Your task to perform on an android device: empty trash in google photos Image 0: 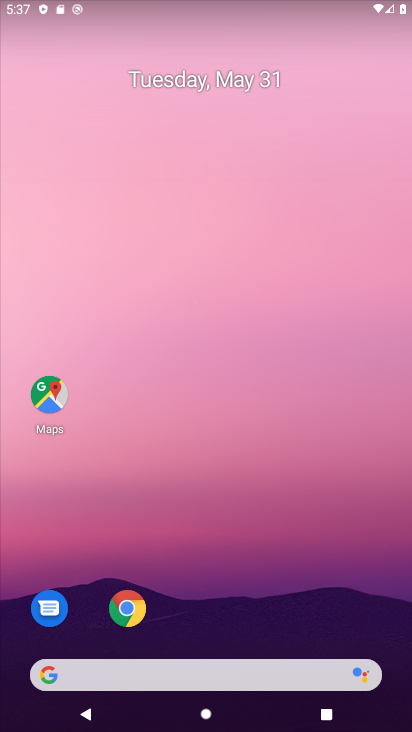
Step 0: drag from (214, 617) to (202, 299)
Your task to perform on an android device: empty trash in google photos Image 1: 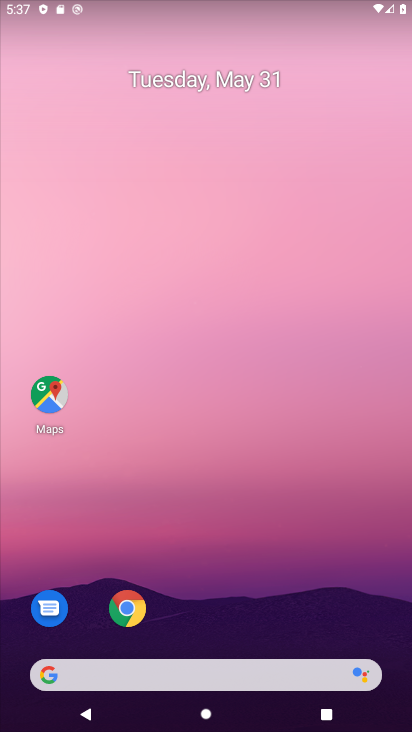
Step 1: drag from (244, 650) to (225, 248)
Your task to perform on an android device: empty trash in google photos Image 2: 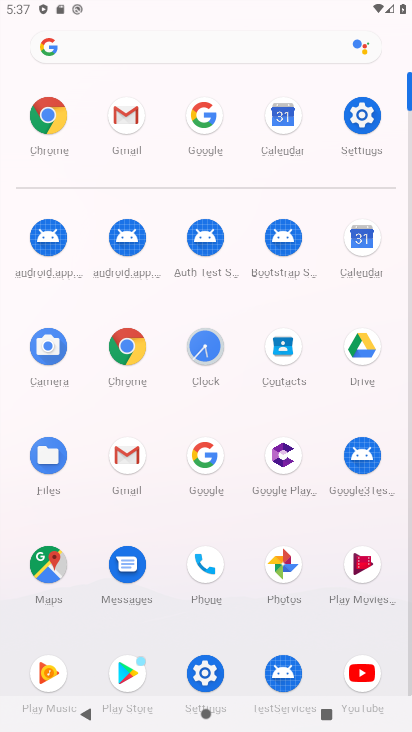
Step 2: click (292, 564)
Your task to perform on an android device: empty trash in google photos Image 3: 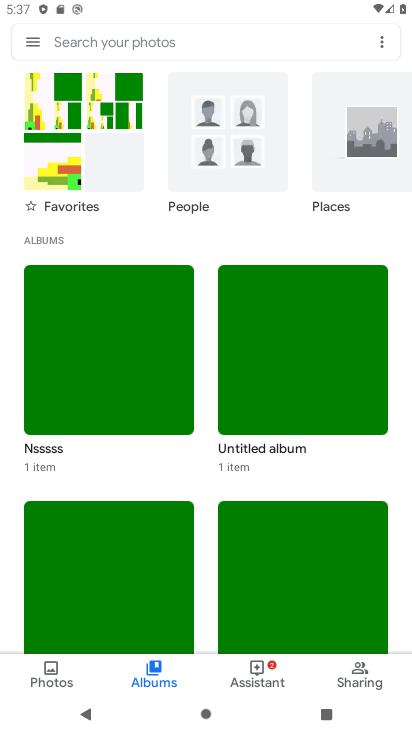
Step 3: click (36, 45)
Your task to perform on an android device: empty trash in google photos Image 4: 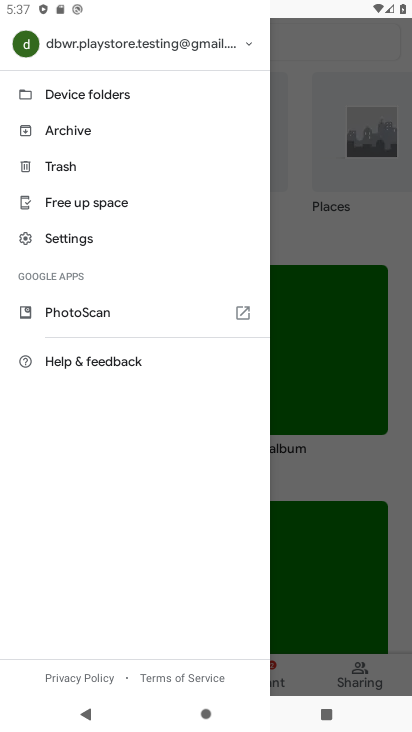
Step 4: click (63, 163)
Your task to perform on an android device: empty trash in google photos Image 5: 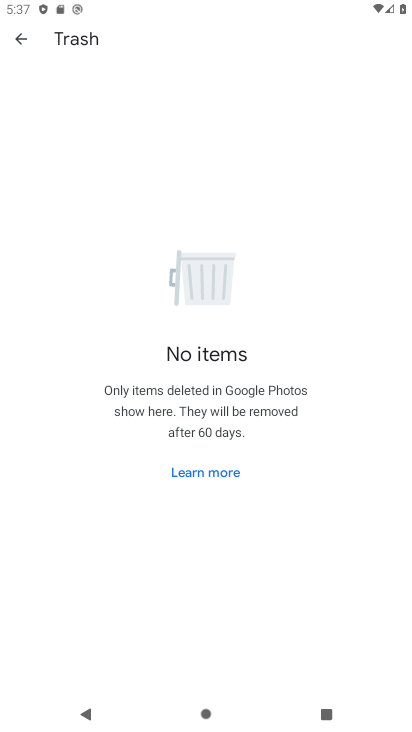
Step 5: task complete